Your task to perform on an android device: Go to location settings Image 0: 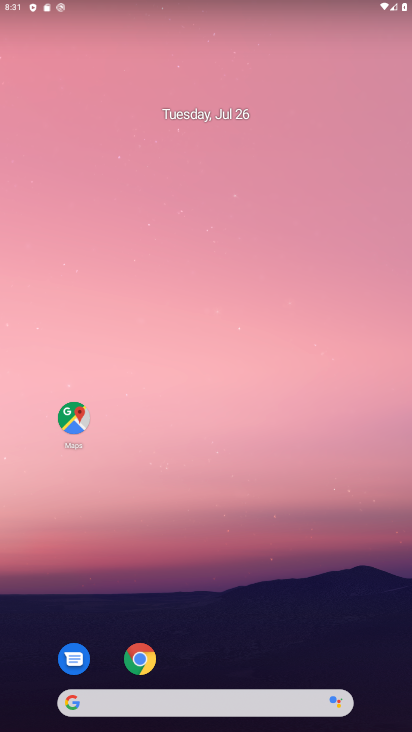
Step 0: drag from (381, 666) to (311, 153)
Your task to perform on an android device: Go to location settings Image 1: 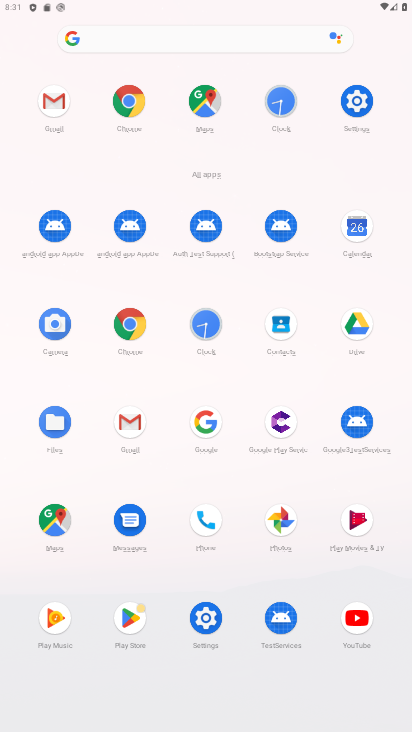
Step 1: click (206, 614)
Your task to perform on an android device: Go to location settings Image 2: 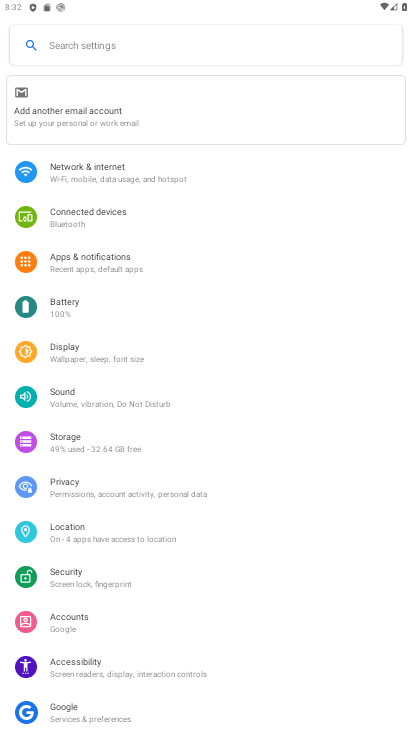
Step 2: click (85, 520)
Your task to perform on an android device: Go to location settings Image 3: 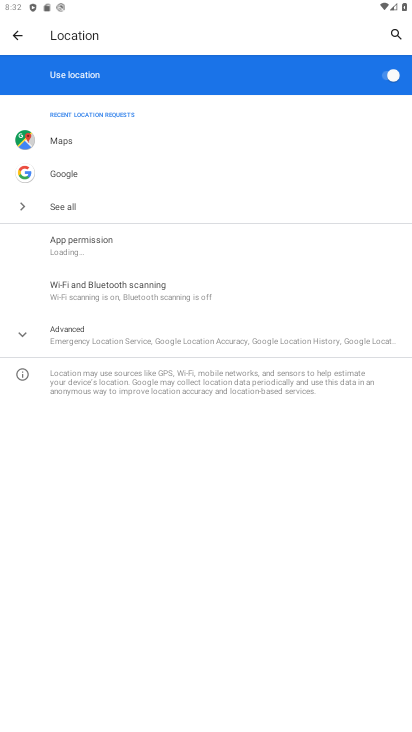
Step 3: click (18, 333)
Your task to perform on an android device: Go to location settings Image 4: 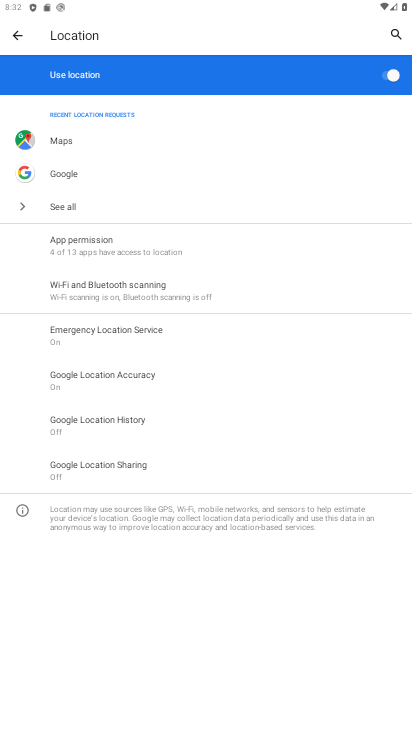
Step 4: task complete